Your task to perform on an android device: refresh tabs in the chrome app Image 0: 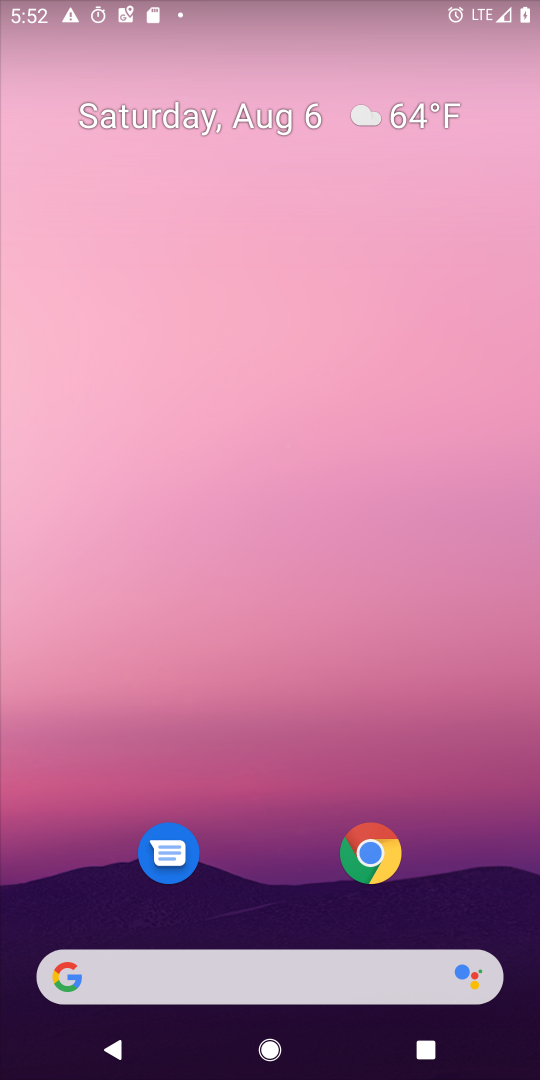
Step 0: click (358, 870)
Your task to perform on an android device: refresh tabs in the chrome app Image 1: 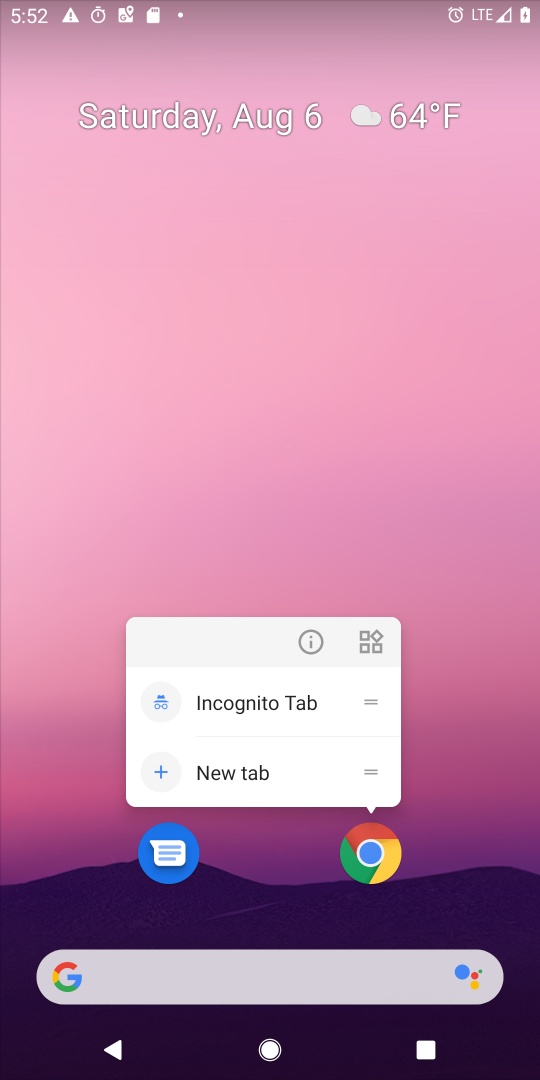
Step 1: click (380, 846)
Your task to perform on an android device: refresh tabs in the chrome app Image 2: 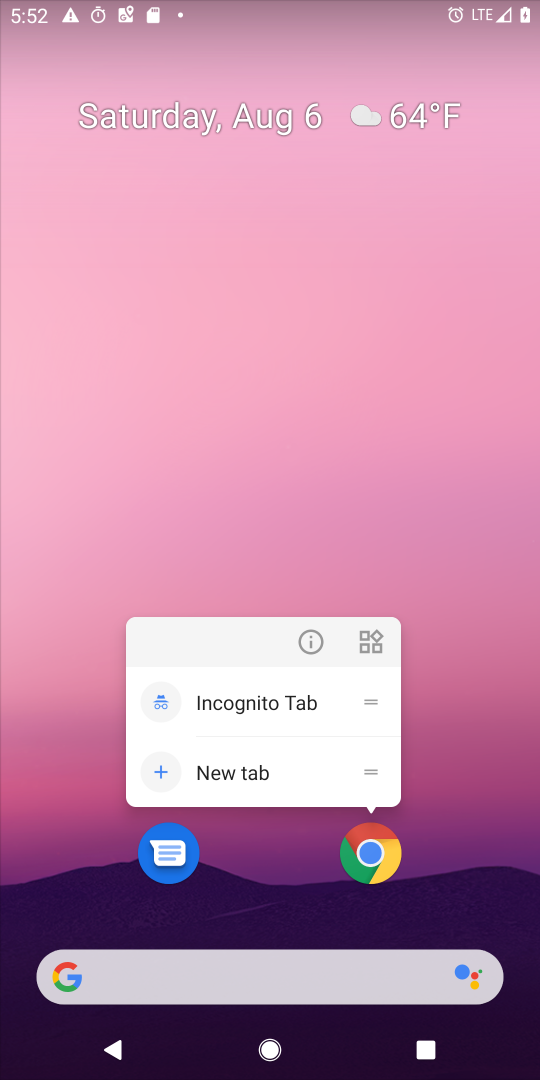
Step 2: click (380, 846)
Your task to perform on an android device: refresh tabs in the chrome app Image 3: 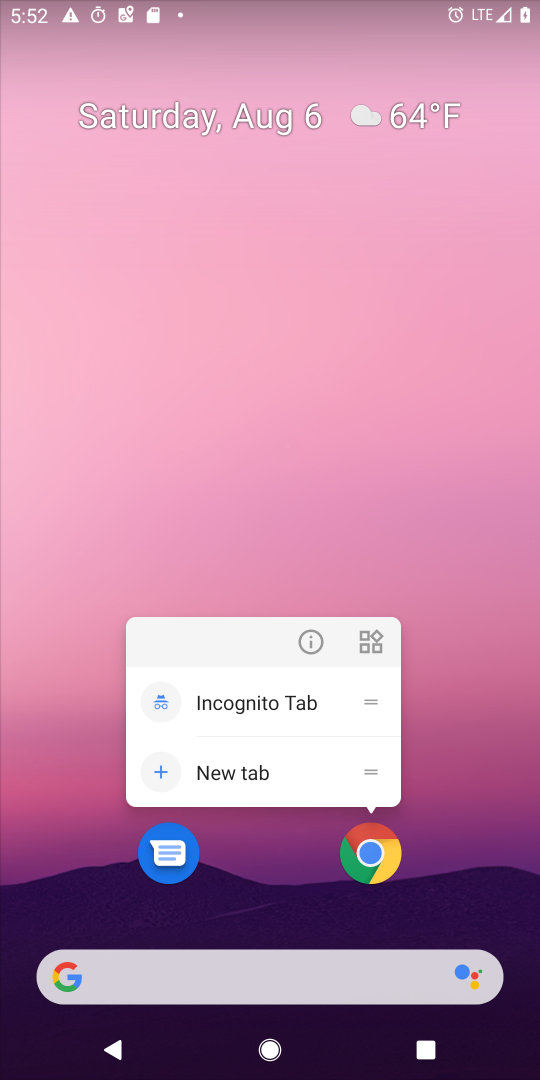
Step 3: click (385, 862)
Your task to perform on an android device: refresh tabs in the chrome app Image 4: 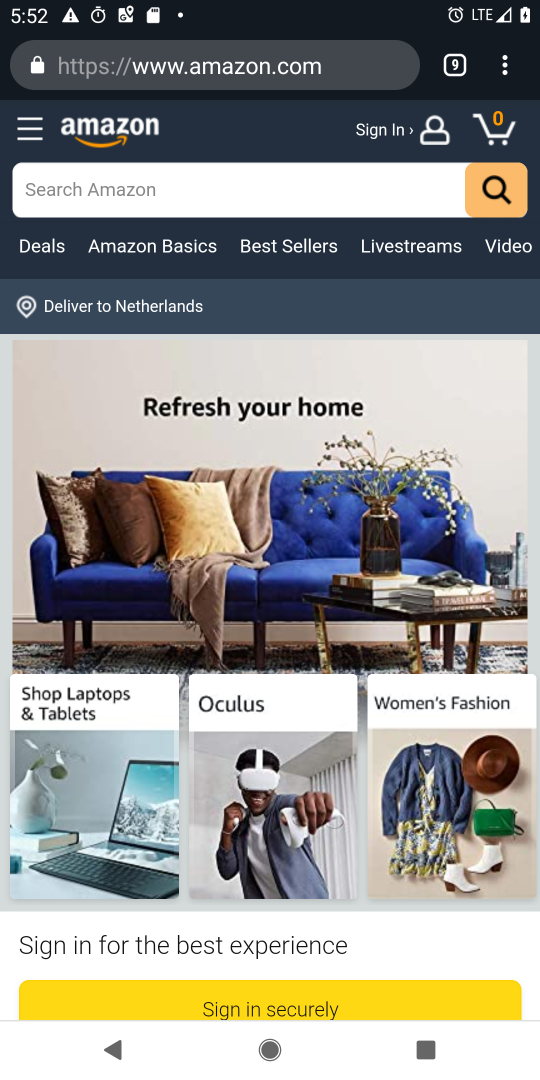
Step 4: click (509, 64)
Your task to perform on an android device: refresh tabs in the chrome app Image 5: 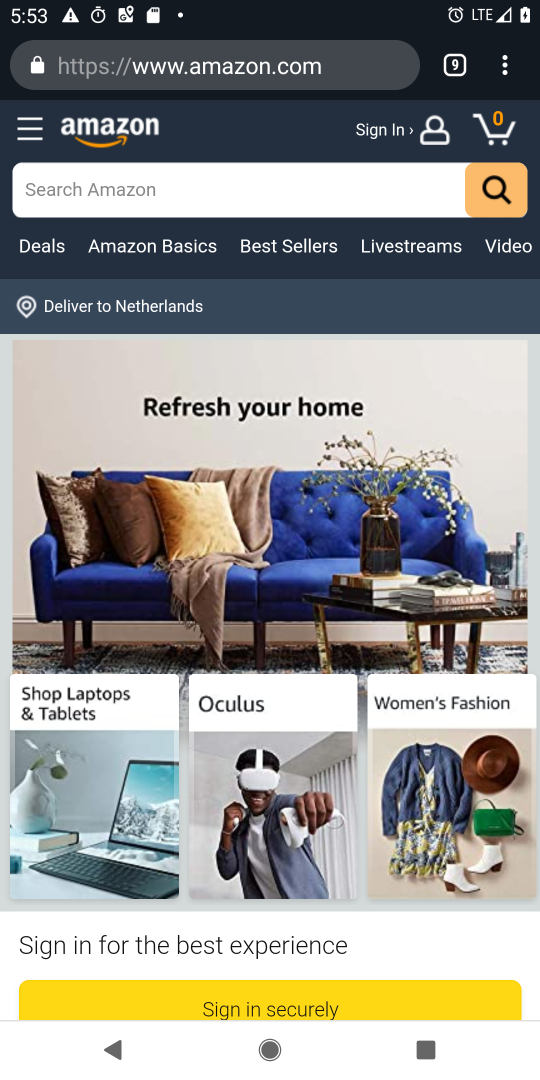
Step 5: task complete